Your task to perform on an android device: open wifi settings Image 0: 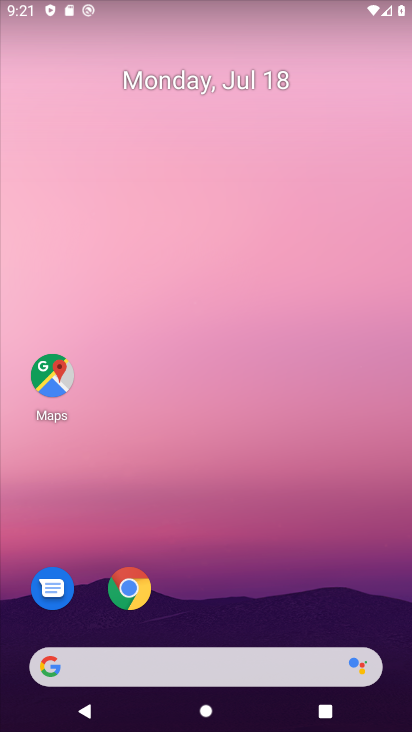
Step 0: drag from (211, 555) to (260, 160)
Your task to perform on an android device: open wifi settings Image 1: 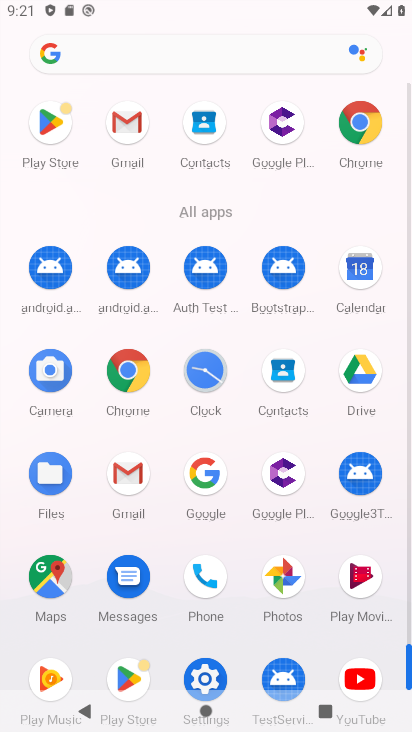
Step 1: click (205, 679)
Your task to perform on an android device: open wifi settings Image 2: 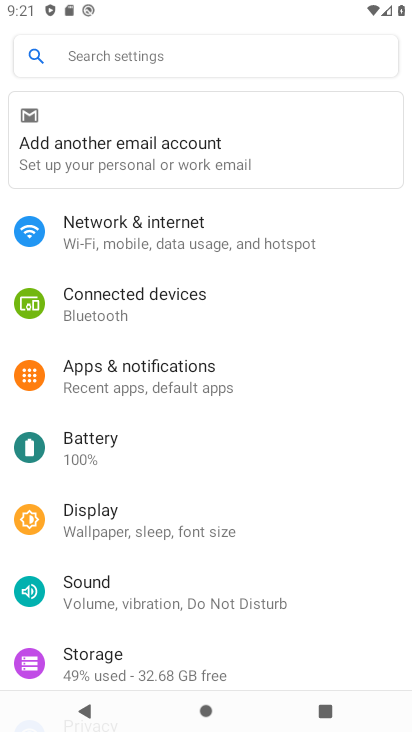
Step 2: click (271, 236)
Your task to perform on an android device: open wifi settings Image 3: 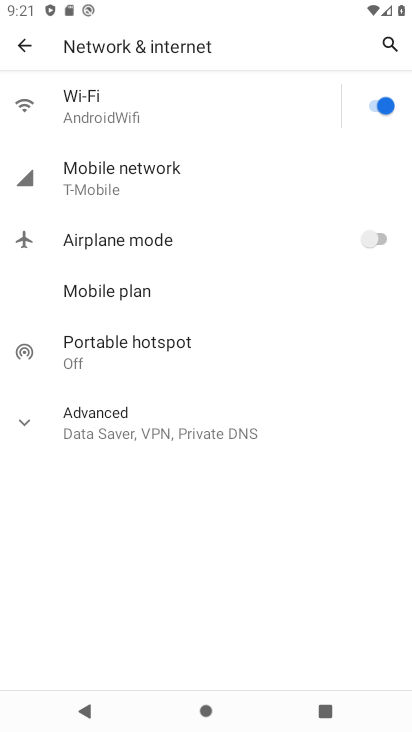
Step 3: click (149, 119)
Your task to perform on an android device: open wifi settings Image 4: 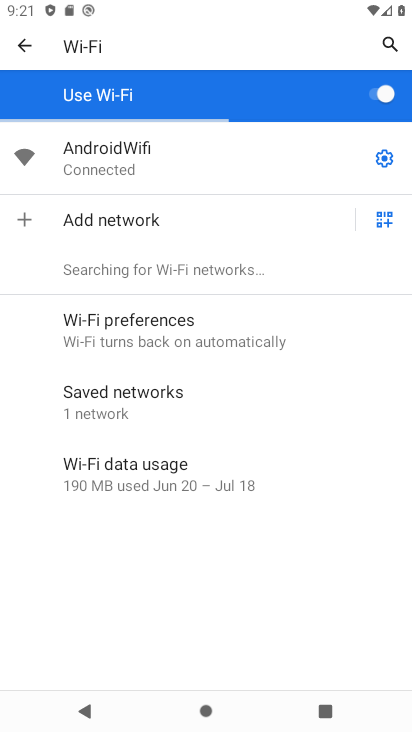
Step 4: task complete